Your task to perform on an android device: Go to wifi settings Image 0: 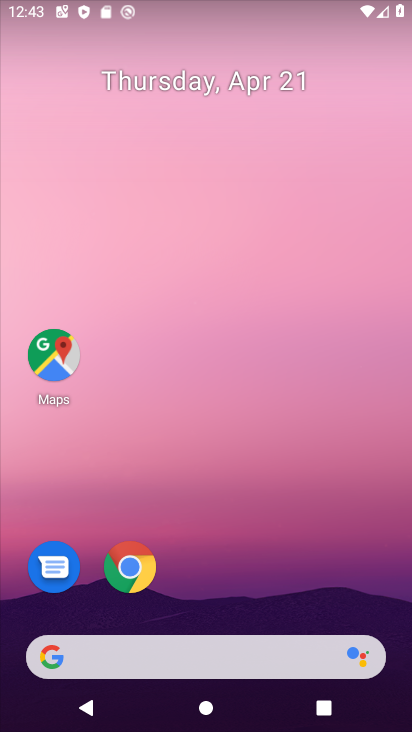
Step 0: click (237, 10)
Your task to perform on an android device: Go to wifi settings Image 1: 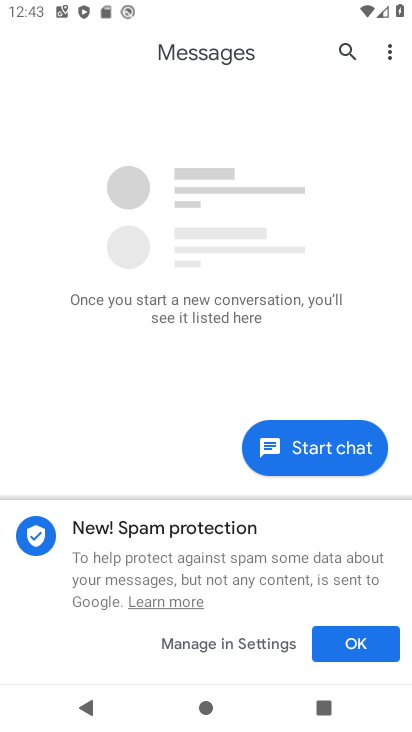
Step 1: press home button
Your task to perform on an android device: Go to wifi settings Image 2: 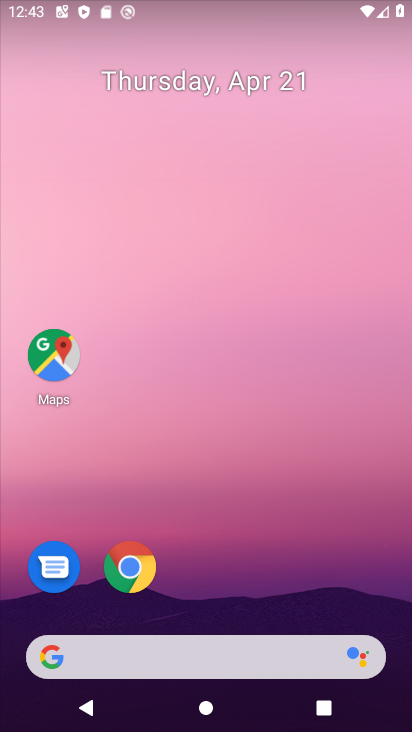
Step 2: drag from (263, 5) to (258, 556)
Your task to perform on an android device: Go to wifi settings Image 3: 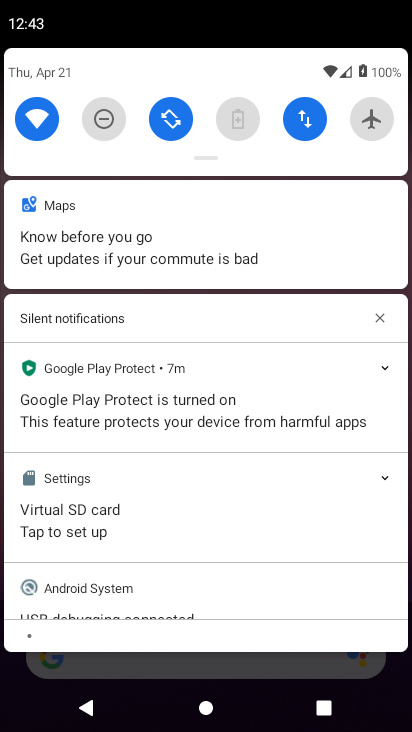
Step 3: click (36, 116)
Your task to perform on an android device: Go to wifi settings Image 4: 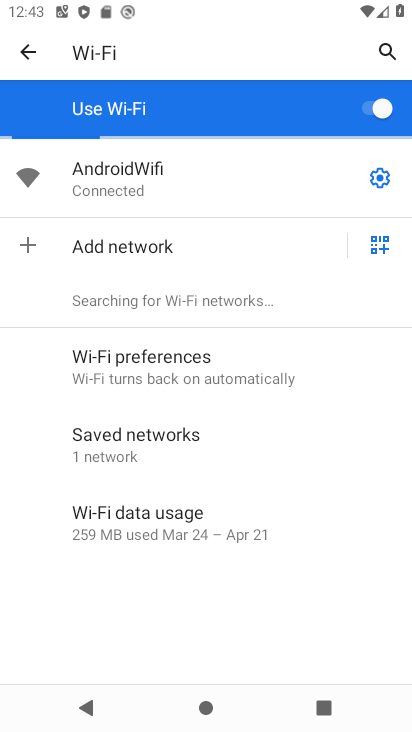
Step 4: task complete